Your task to perform on an android device: add a label to a message in the gmail app Image 0: 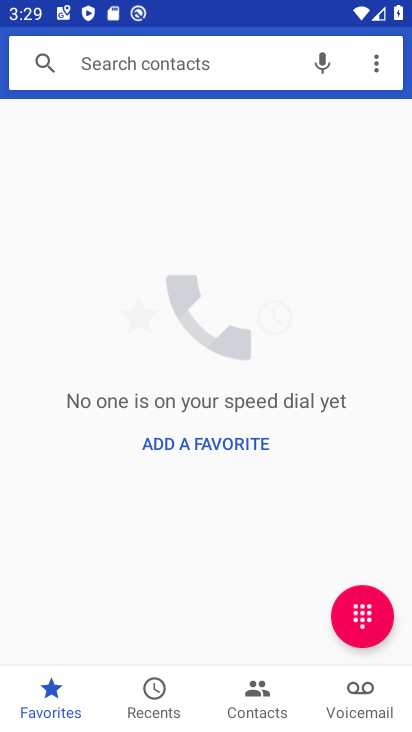
Step 0: press home button
Your task to perform on an android device: add a label to a message in the gmail app Image 1: 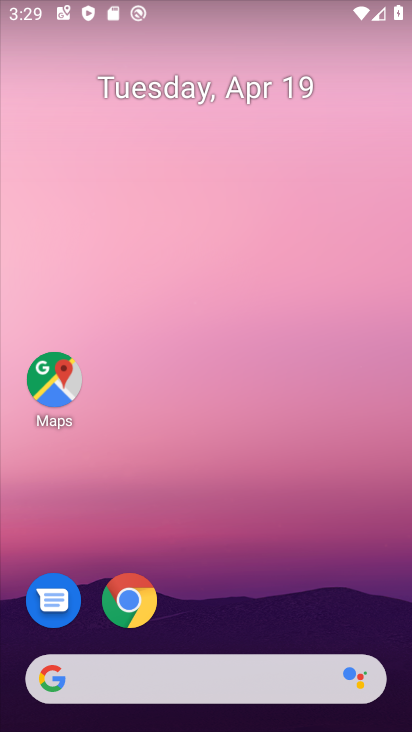
Step 1: drag from (228, 612) to (230, 52)
Your task to perform on an android device: add a label to a message in the gmail app Image 2: 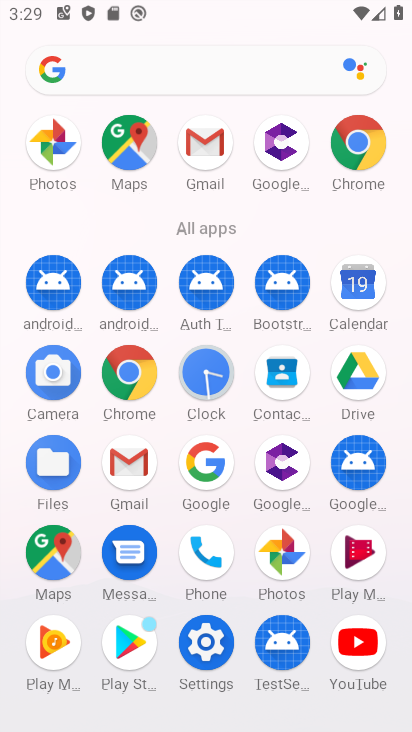
Step 2: click (220, 122)
Your task to perform on an android device: add a label to a message in the gmail app Image 3: 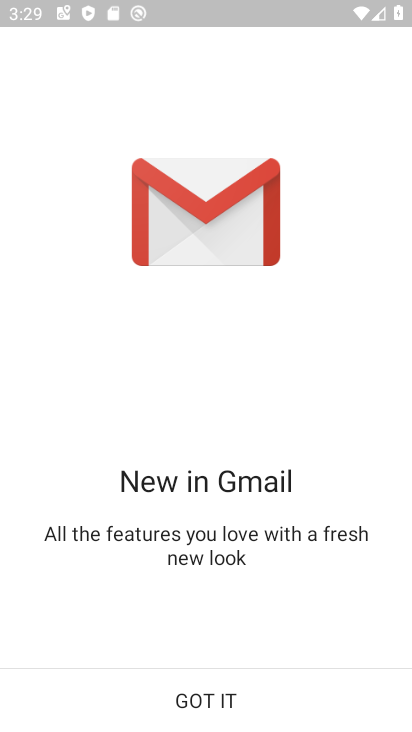
Step 3: click (220, 681)
Your task to perform on an android device: add a label to a message in the gmail app Image 4: 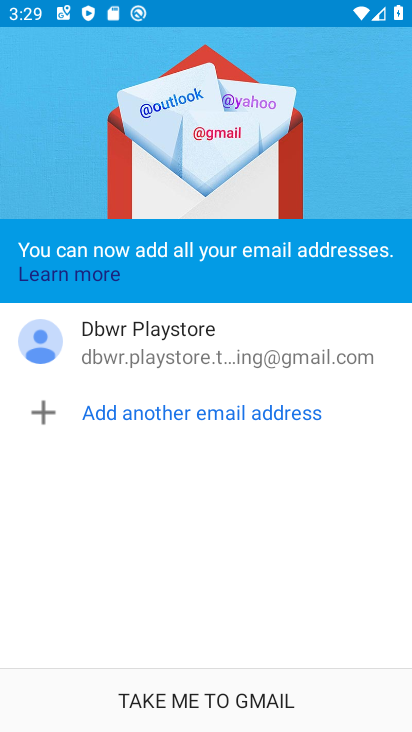
Step 4: click (236, 715)
Your task to perform on an android device: add a label to a message in the gmail app Image 5: 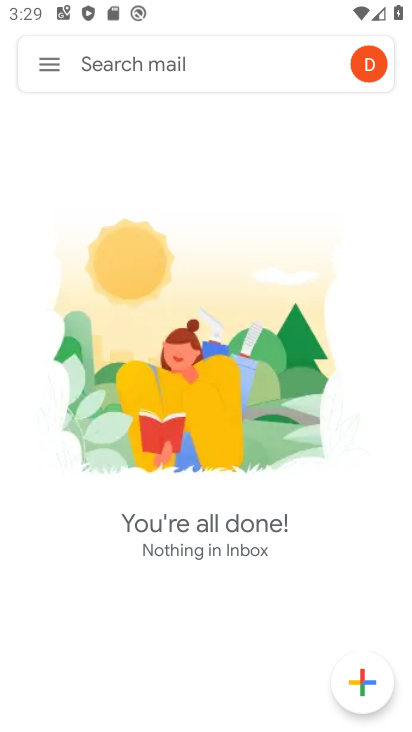
Step 5: task complete